Your task to perform on an android device: Open Amazon Image 0: 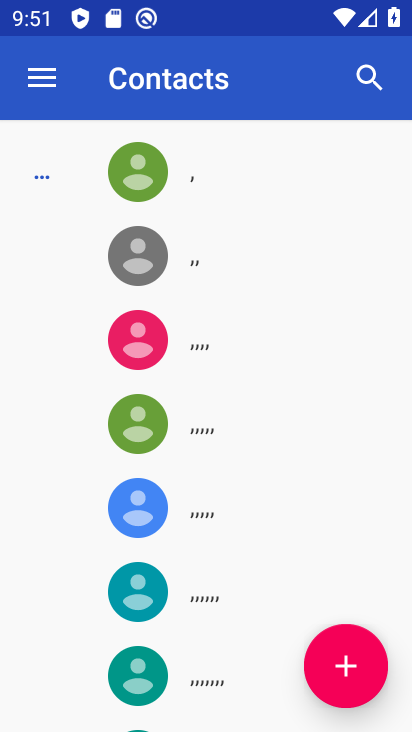
Step 0: press home button
Your task to perform on an android device: Open Amazon Image 1: 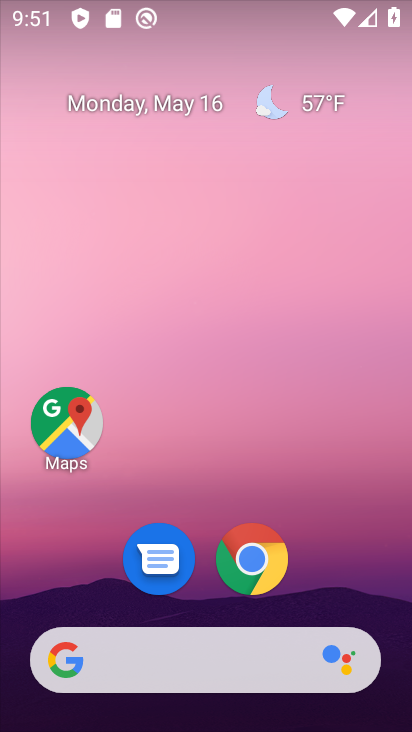
Step 1: click (247, 562)
Your task to perform on an android device: Open Amazon Image 2: 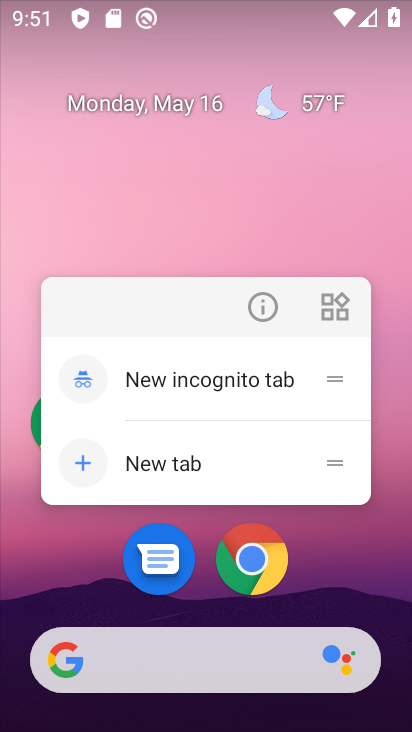
Step 2: click (247, 562)
Your task to perform on an android device: Open Amazon Image 3: 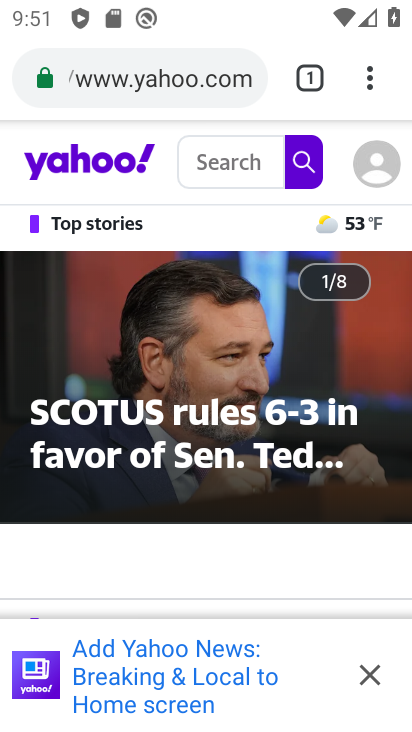
Step 3: click (222, 88)
Your task to perform on an android device: Open Amazon Image 4: 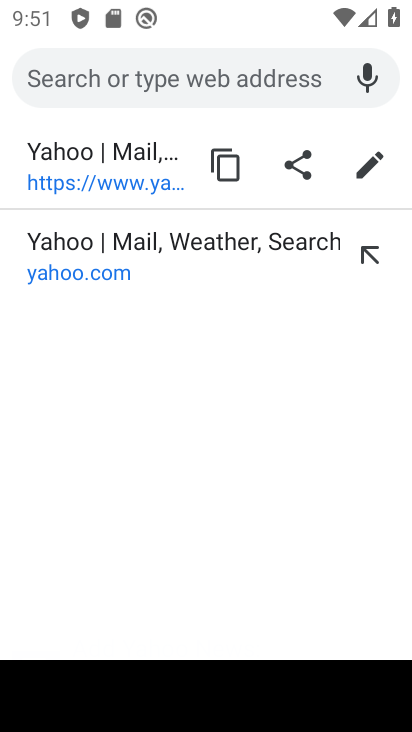
Step 4: type "amazon"
Your task to perform on an android device: Open Amazon Image 5: 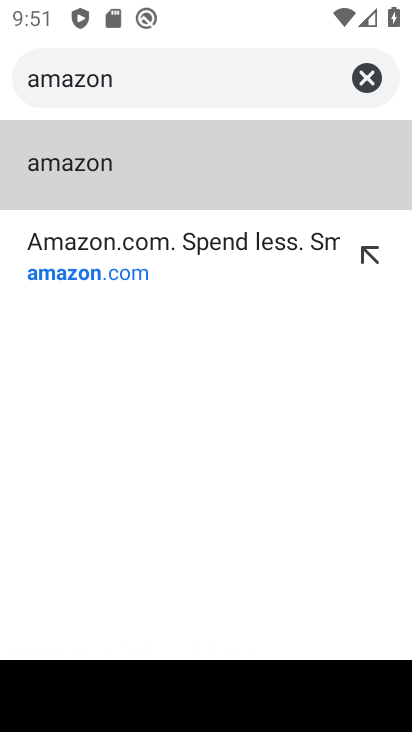
Step 5: click (92, 161)
Your task to perform on an android device: Open Amazon Image 6: 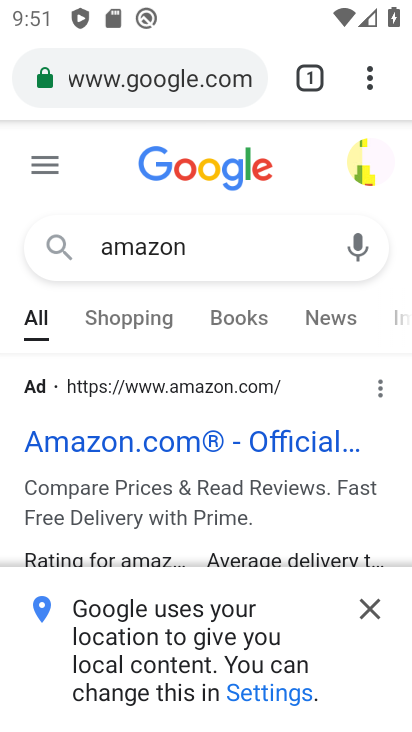
Step 6: drag from (207, 490) to (322, 28)
Your task to perform on an android device: Open Amazon Image 7: 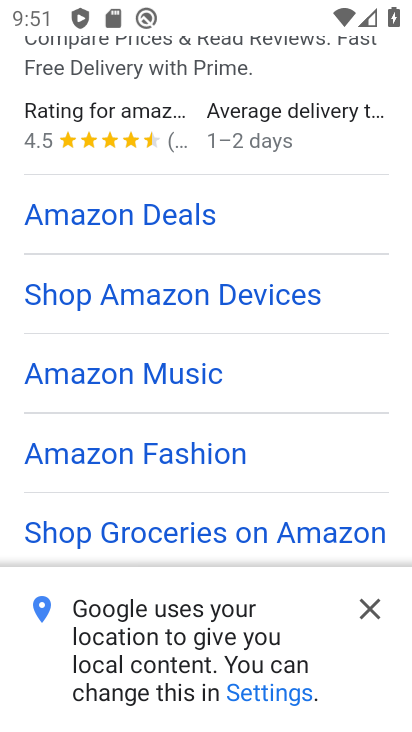
Step 7: drag from (240, 506) to (326, 87)
Your task to perform on an android device: Open Amazon Image 8: 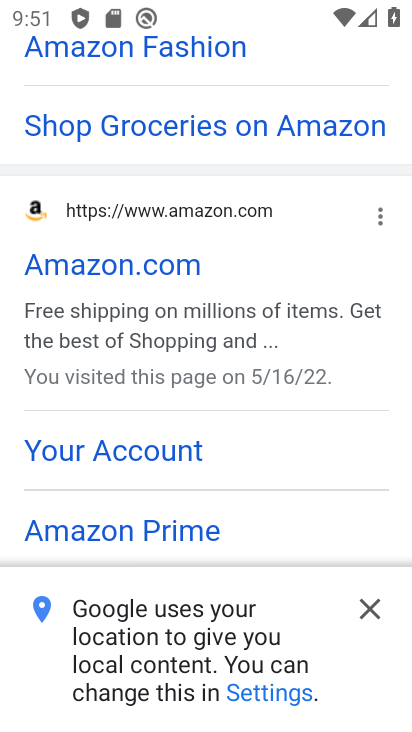
Step 8: click (160, 268)
Your task to perform on an android device: Open Amazon Image 9: 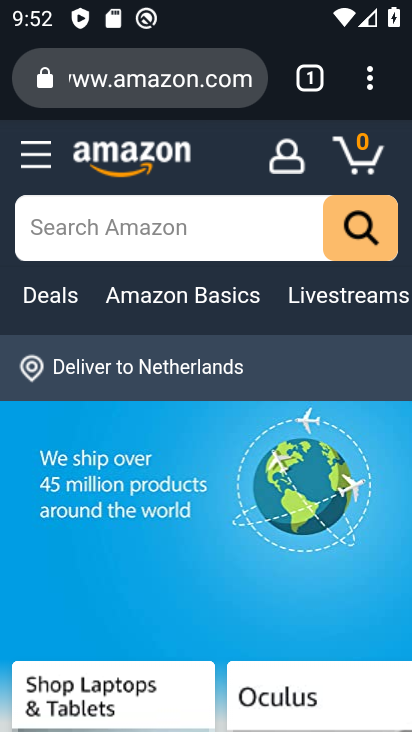
Step 9: task complete